Your task to perform on an android device: Go to Google maps Image 0: 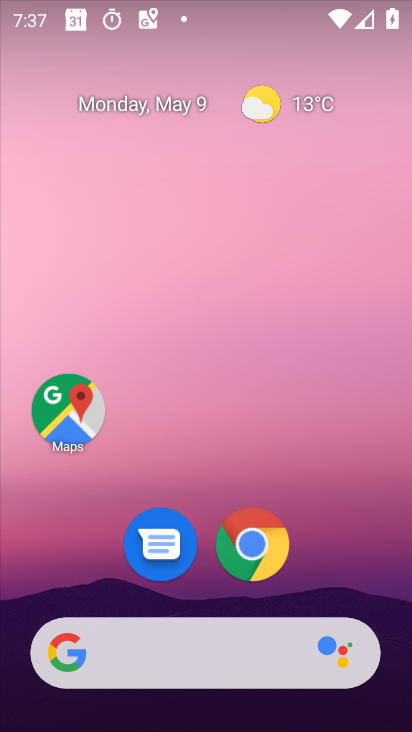
Step 0: drag from (343, 558) to (254, 12)
Your task to perform on an android device: Go to Google maps Image 1: 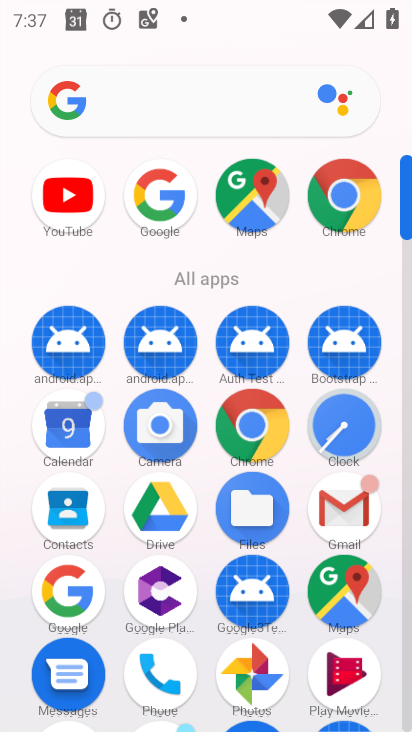
Step 1: click (81, 598)
Your task to perform on an android device: Go to Google maps Image 2: 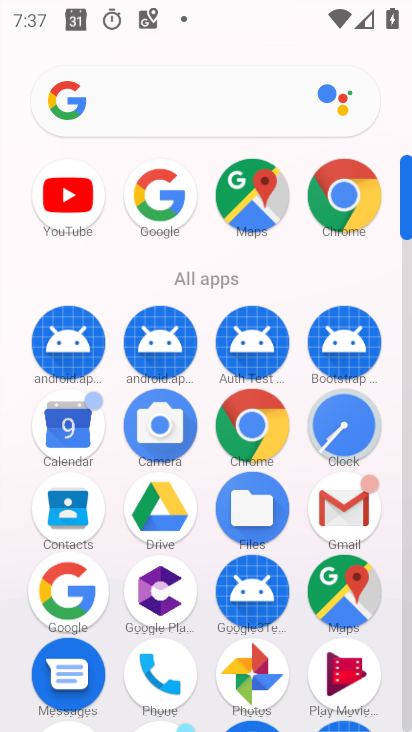
Step 2: click (81, 597)
Your task to perform on an android device: Go to Google maps Image 3: 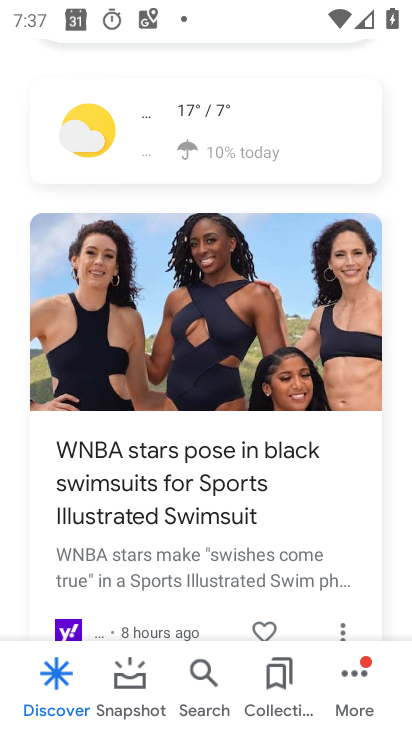
Step 3: task complete